Your task to perform on an android device: change notifications settings Image 0: 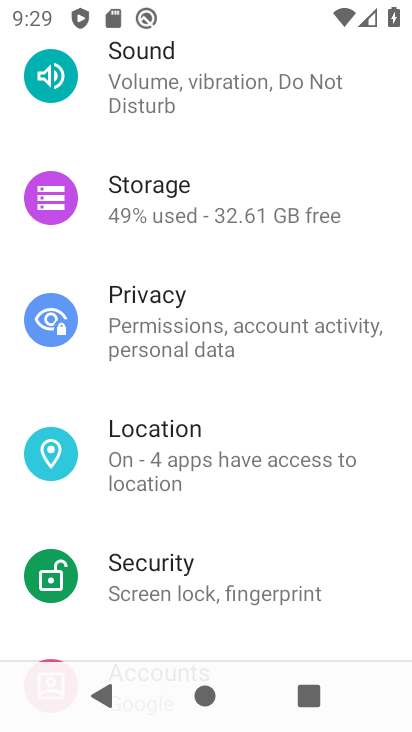
Step 0: drag from (373, 579) to (369, 92)
Your task to perform on an android device: change notifications settings Image 1: 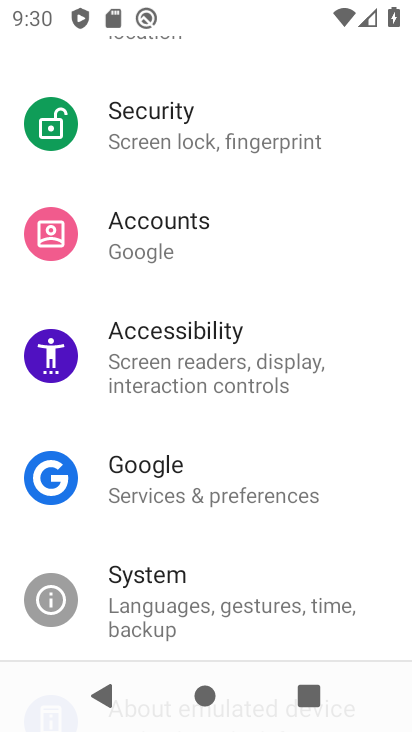
Step 1: drag from (309, 121) to (301, 550)
Your task to perform on an android device: change notifications settings Image 2: 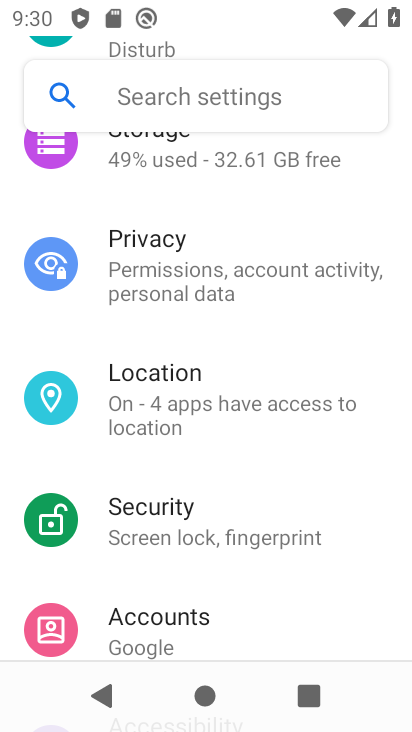
Step 2: drag from (286, 160) to (292, 540)
Your task to perform on an android device: change notifications settings Image 3: 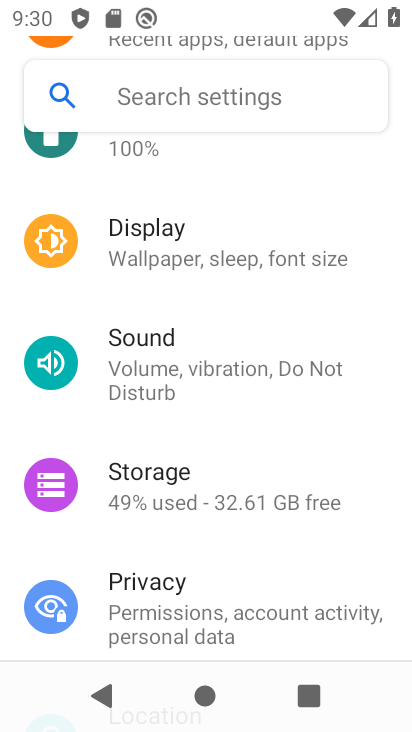
Step 3: drag from (277, 199) to (243, 573)
Your task to perform on an android device: change notifications settings Image 4: 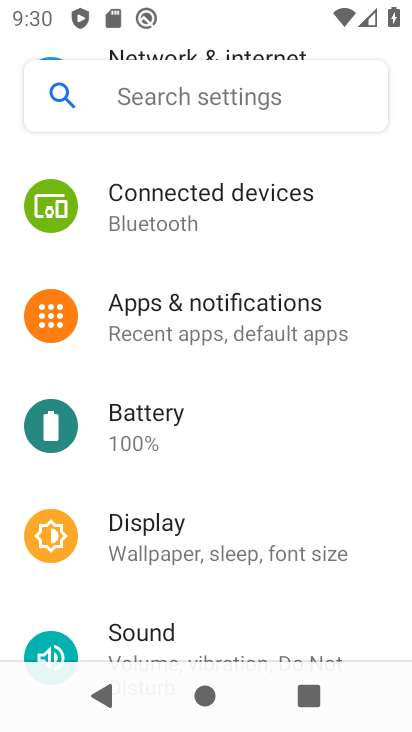
Step 4: click (241, 298)
Your task to perform on an android device: change notifications settings Image 5: 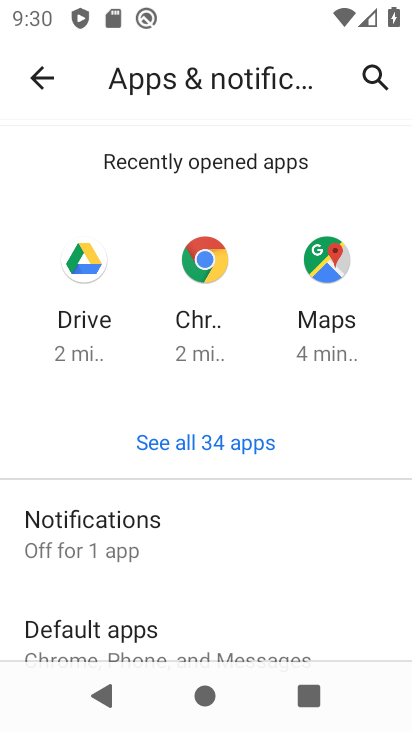
Step 5: click (156, 516)
Your task to perform on an android device: change notifications settings Image 6: 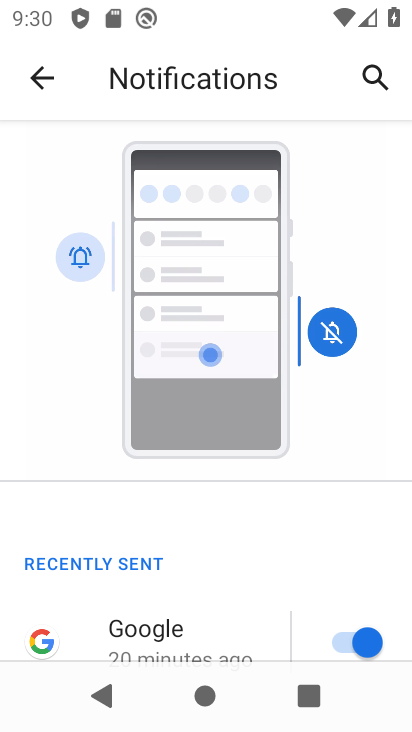
Step 6: drag from (319, 568) to (382, 171)
Your task to perform on an android device: change notifications settings Image 7: 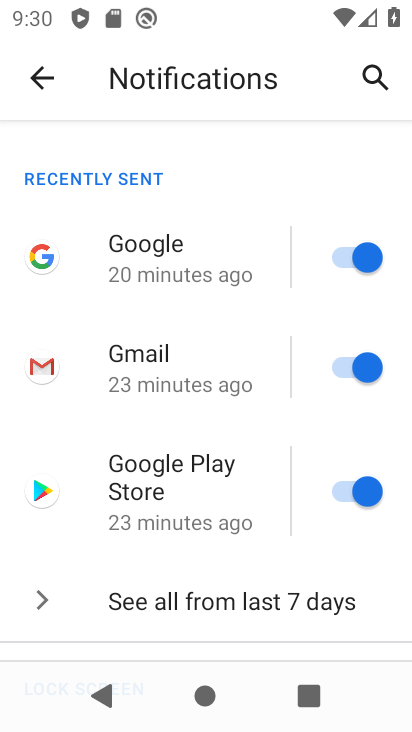
Step 7: drag from (255, 561) to (275, 256)
Your task to perform on an android device: change notifications settings Image 8: 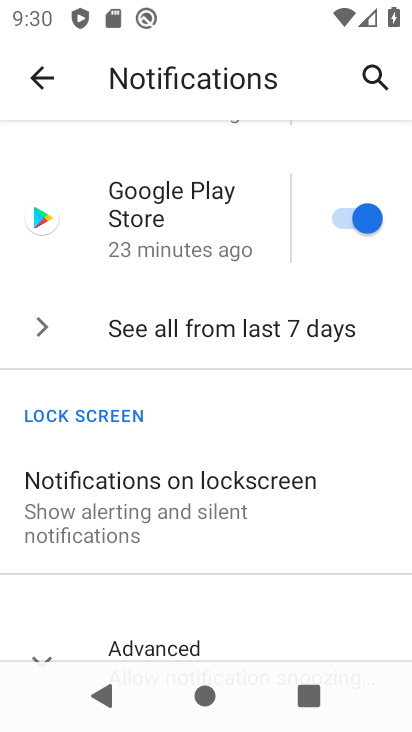
Step 8: drag from (290, 603) to (284, 373)
Your task to perform on an android device: change notifications settings Image 9: 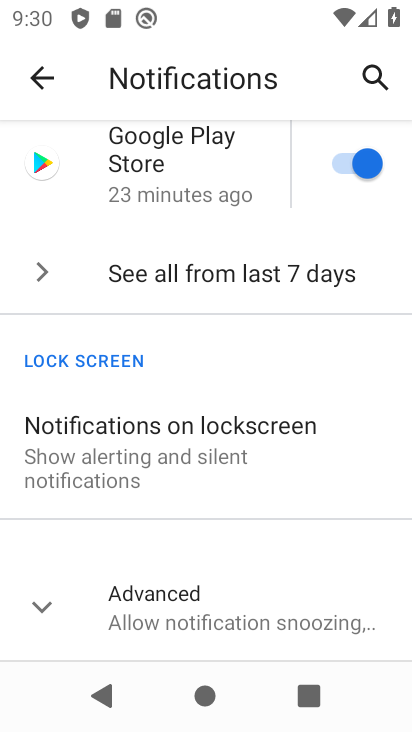
Step 9: click (342, 160)
Your task to perform on an android device: change notifications settings Image 10: 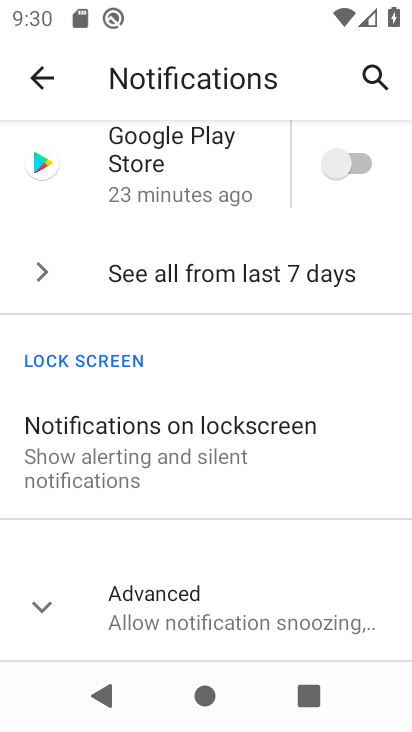
Step 10: task complete